Your task to perform on an android device: see sites visited before in the chrome app Image 0: 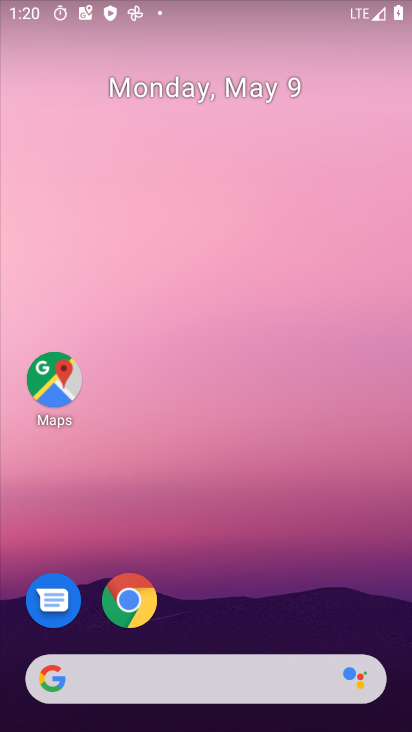
Step 0: drag from (292, 611) to (245, 7)
Your task to perform on an android device: see sites visited before in the chrome app Image 1: 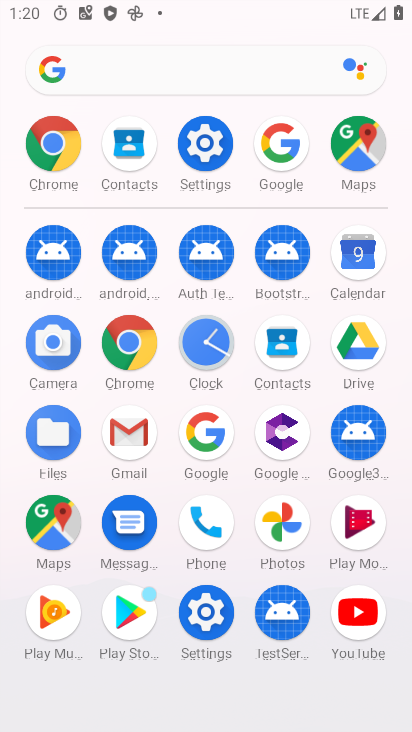
Step 1: click (135, 356)
Your task to perform on an android device: see sites visited before in the chrome app Image 2: 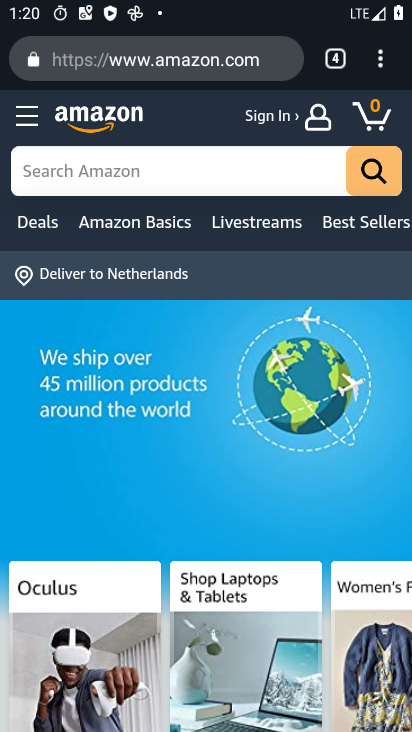
Step 2: click (380, 65)
Your task to perform on an android device: see sites visited before in the chrome app Image 3: 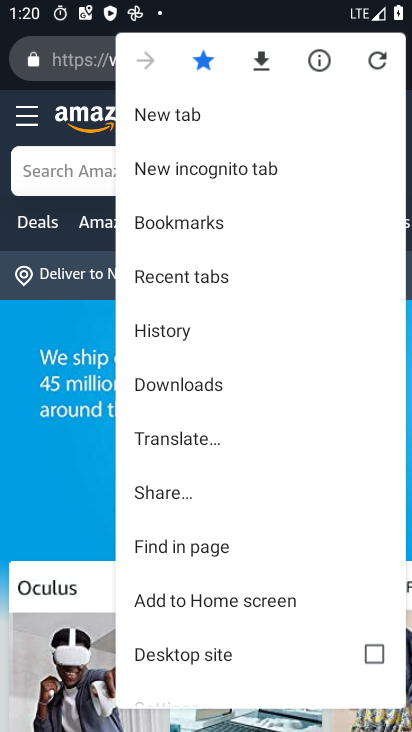
Step 3: click (233, 281)
Your task to perform on an android device: see sites visited before in the chrome app Image 4: 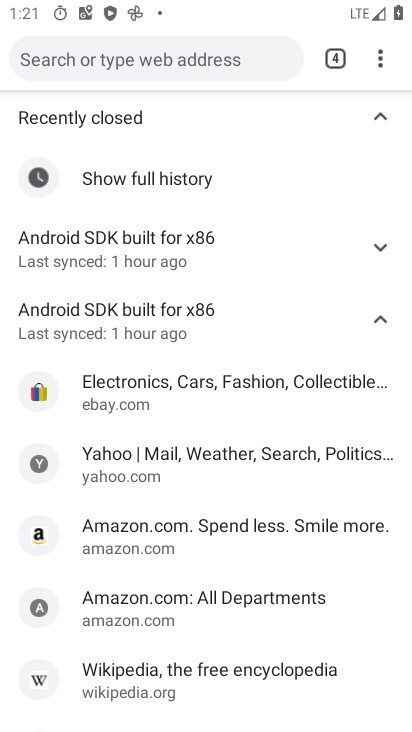
Step 4: task complete